Your task to perform on an android device: turn off wifi Image 0: 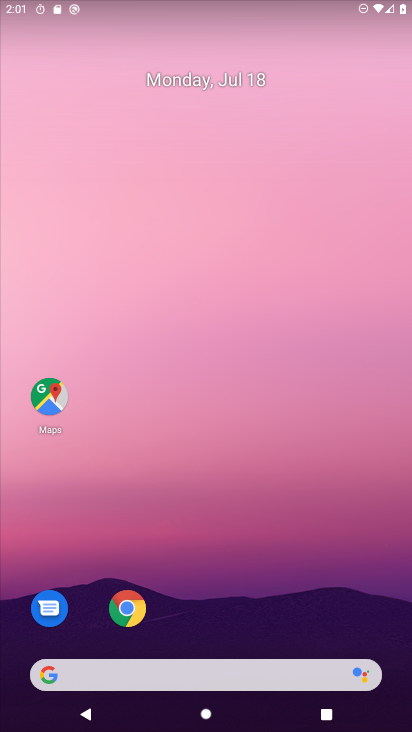
Step 0: drag from (233, 693) to (232, 201)
Your task to perform on an android device: turn off wifi Image 1: 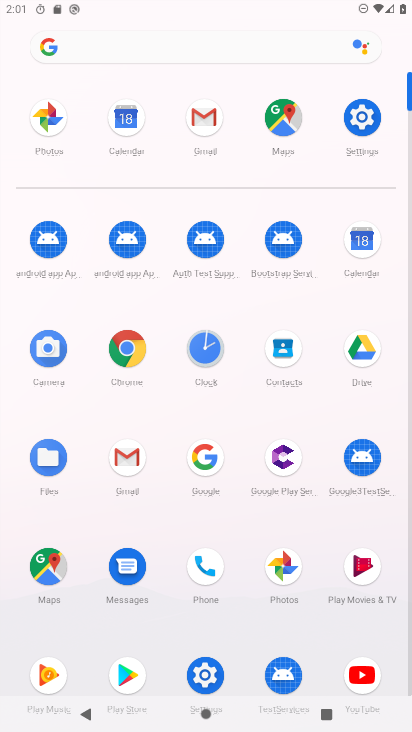
Step 1: click (360, 118)
Your task to perform on an android device: turn off wifi Image 2: 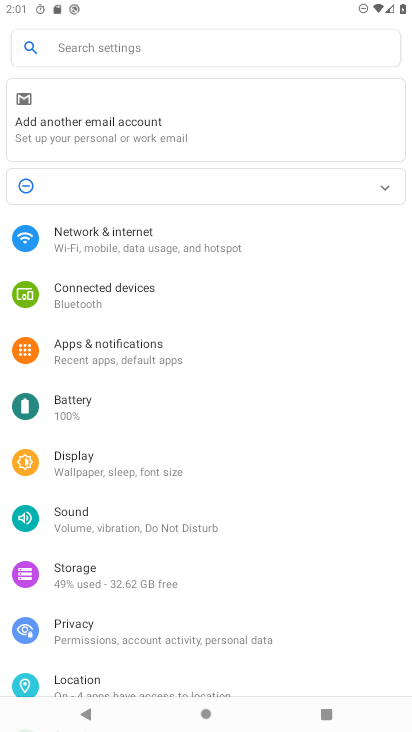
Step 2: click (122, 244)
Your task to perform on an android device: turn off wifi Image 3: 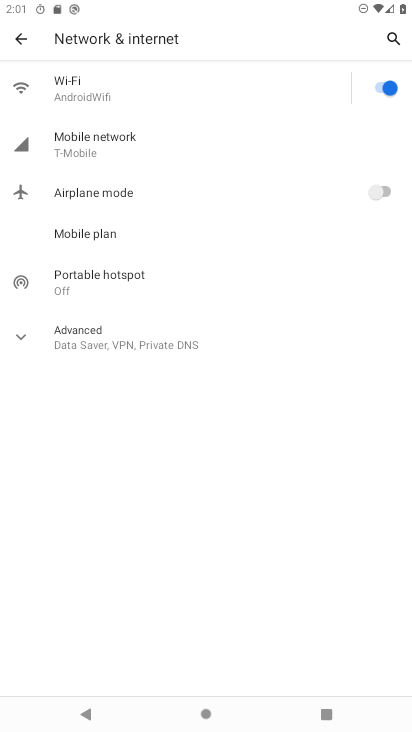
Step 3: click (383, 85)
Your task to perform on an android device: turn off wifi Image 4: 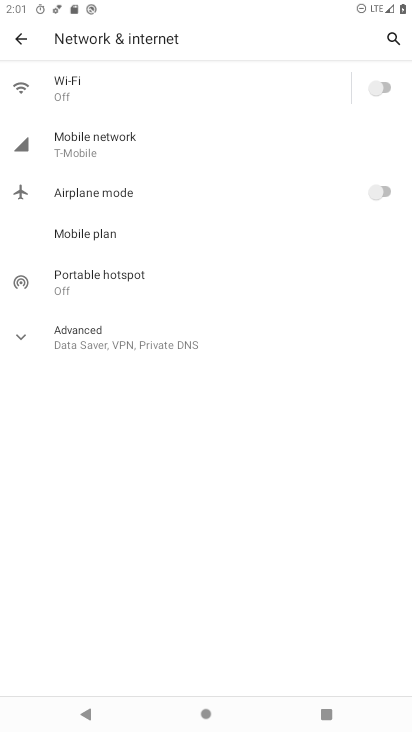
Step 4: task complete